Your task to perform on an android device: Open calendar and show me the third week of next month Image 0: 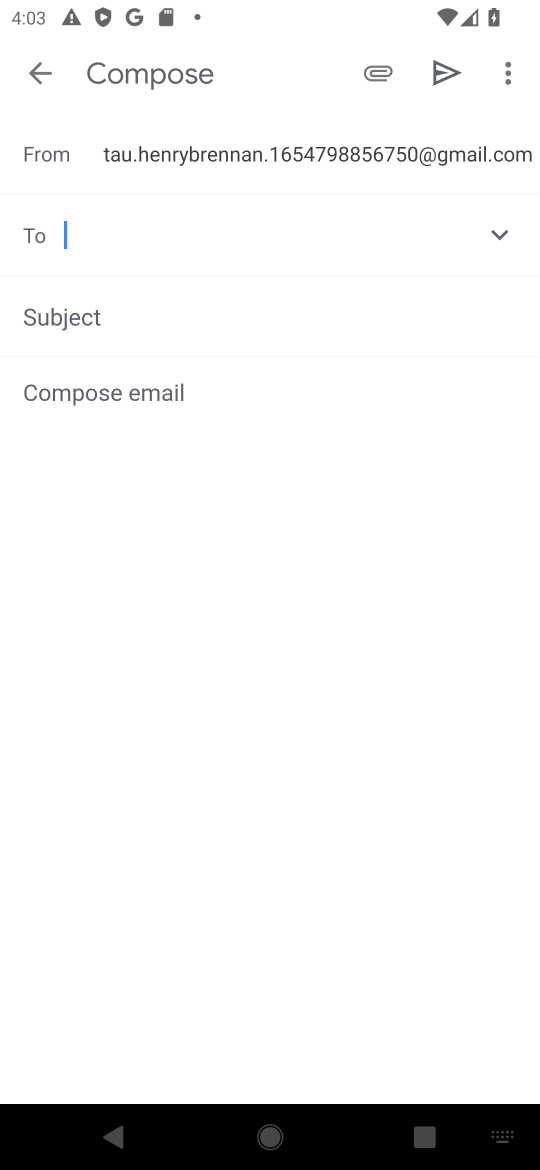
Step 0: press home button
Your task to perform on an android device: Open calendar and show me the third week of next month Image 1: 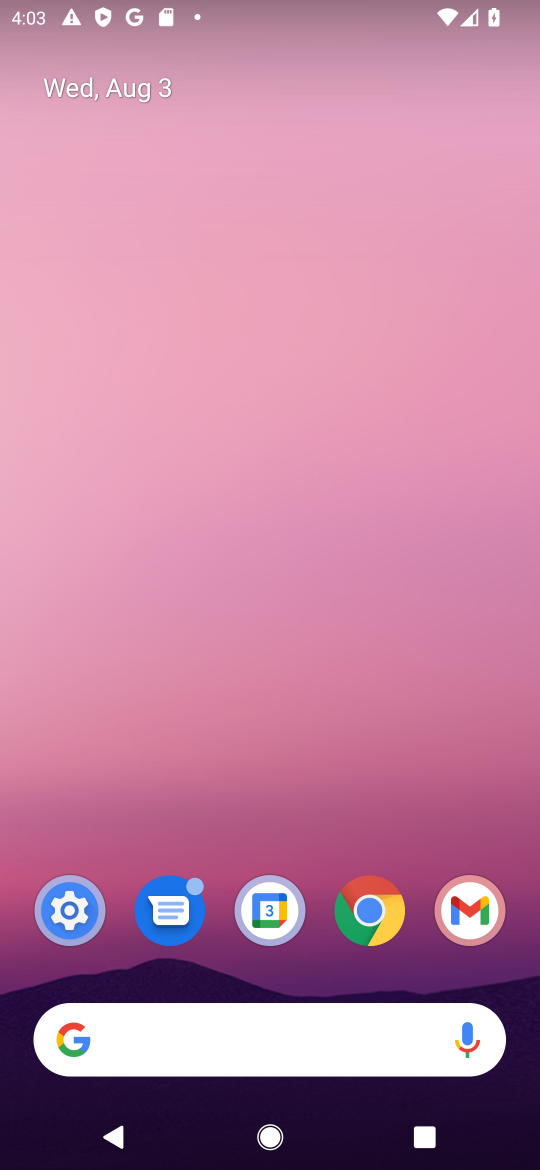
Step 1: drag from (68, 1097) to (295, 100)
Your task to perform on an android device: Open calendar and show me the third week of next month Image 2: 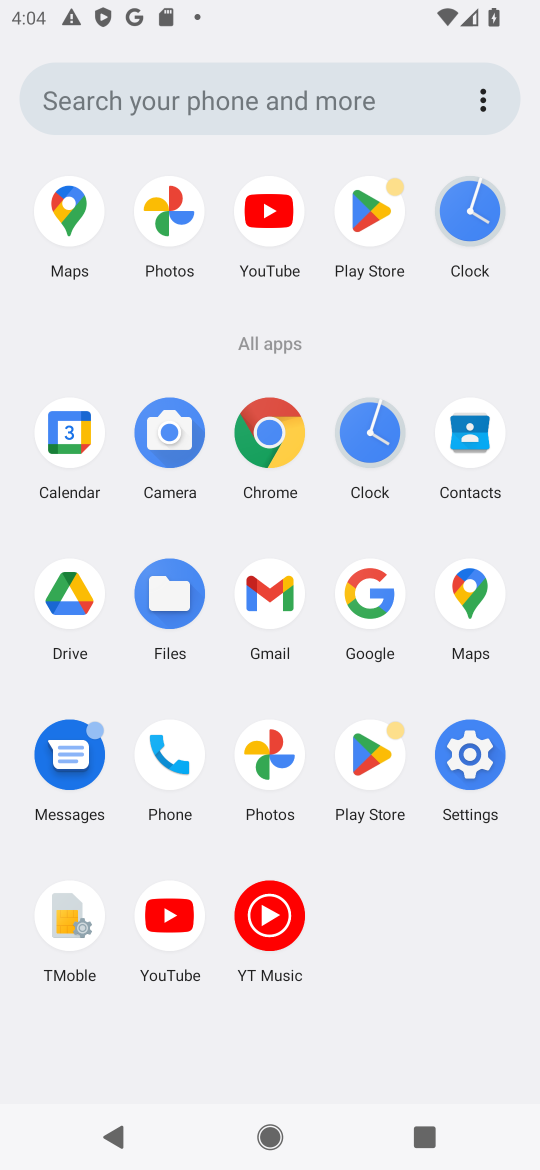
Step 2: click (90, 462)
Your task to perform on an android device: Open calendar and show me the third week of next month Image 3: 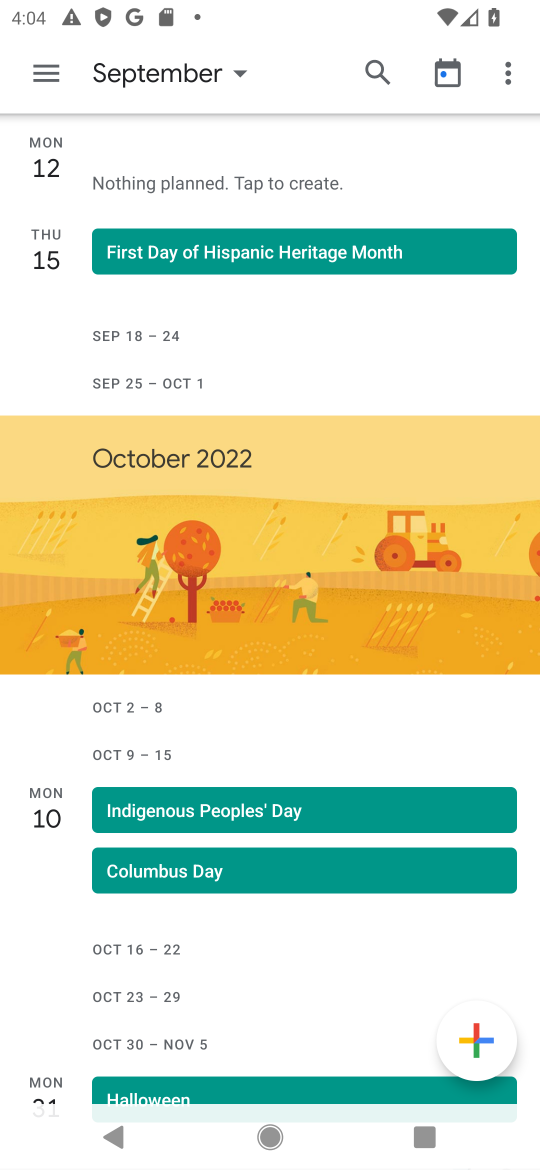
Step 3: click (233, 64)
Your task to perform on an android device: Open calendar and show me the third week of next month Image 4: 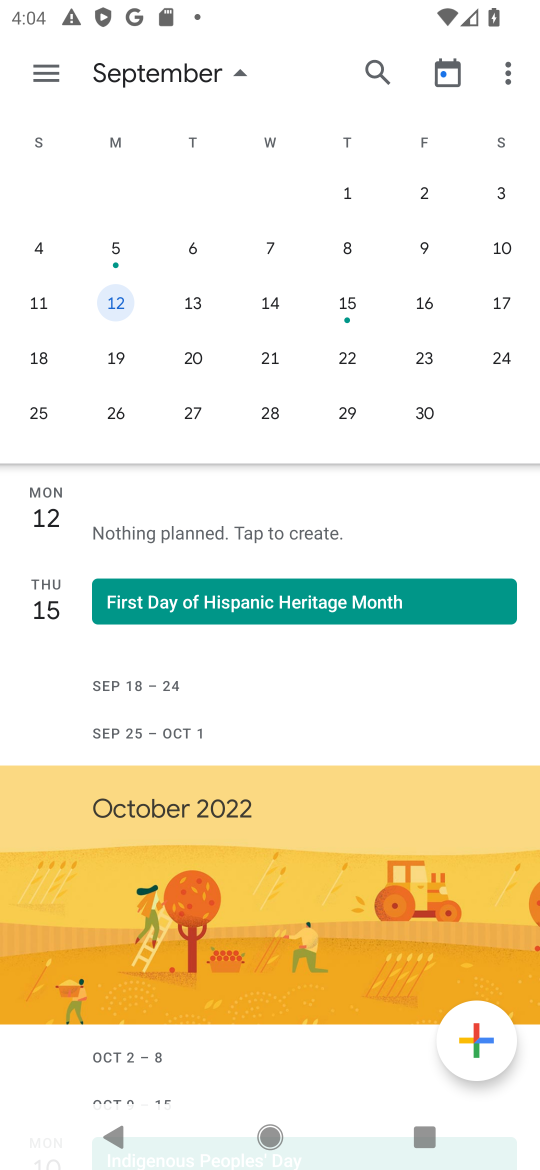
Step 4: drag from (38, 205) to (528, 507)
Your task to perform on an android device: Open calendar and show me the third week of next month Image 5: 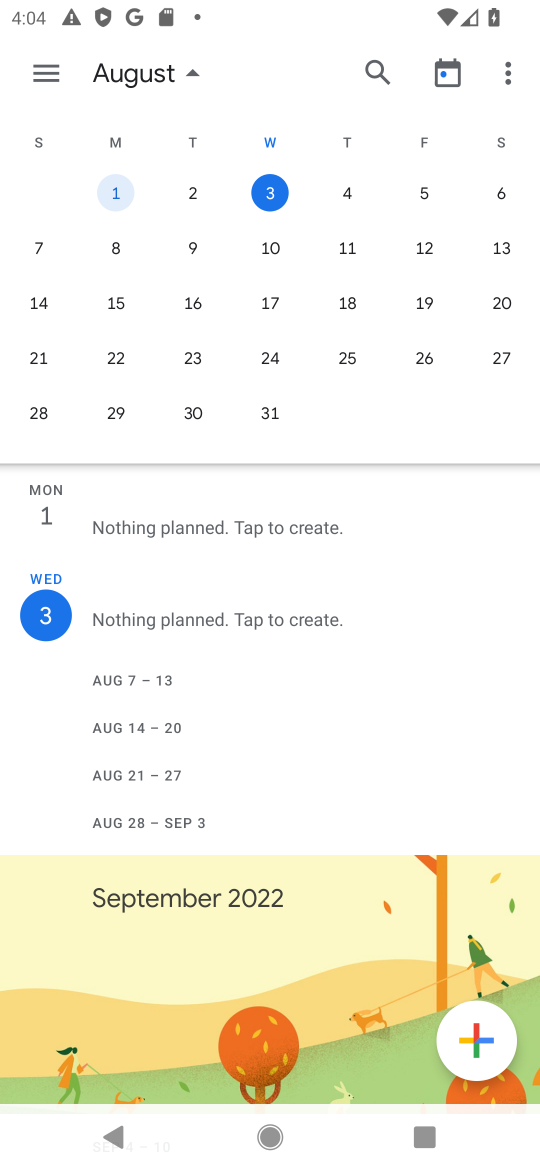
Step 5: click (117, 297)
Your task to perform on an android device: Open calendar and show me the third week of next month Image 6: 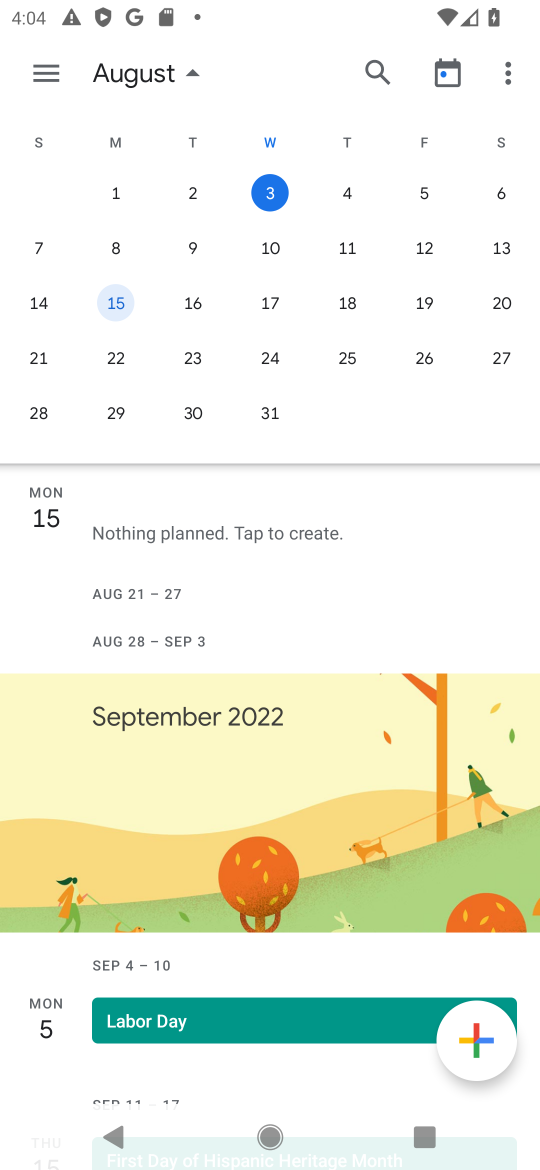
Step 6: drag from (507, 235) to (36, 176)
Your task to perform on an android device: Open calendar and show me the third week of next month Image 7: 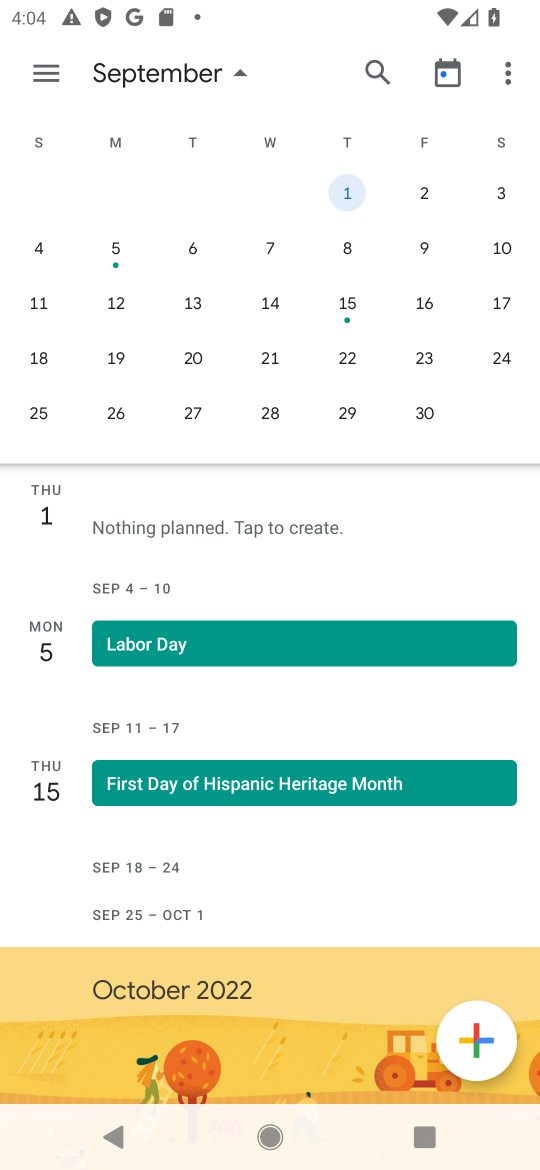
Step 7: click (118, 287)
Your task to perform on an android device: Open calendar and show me the third week of next month Image 8: 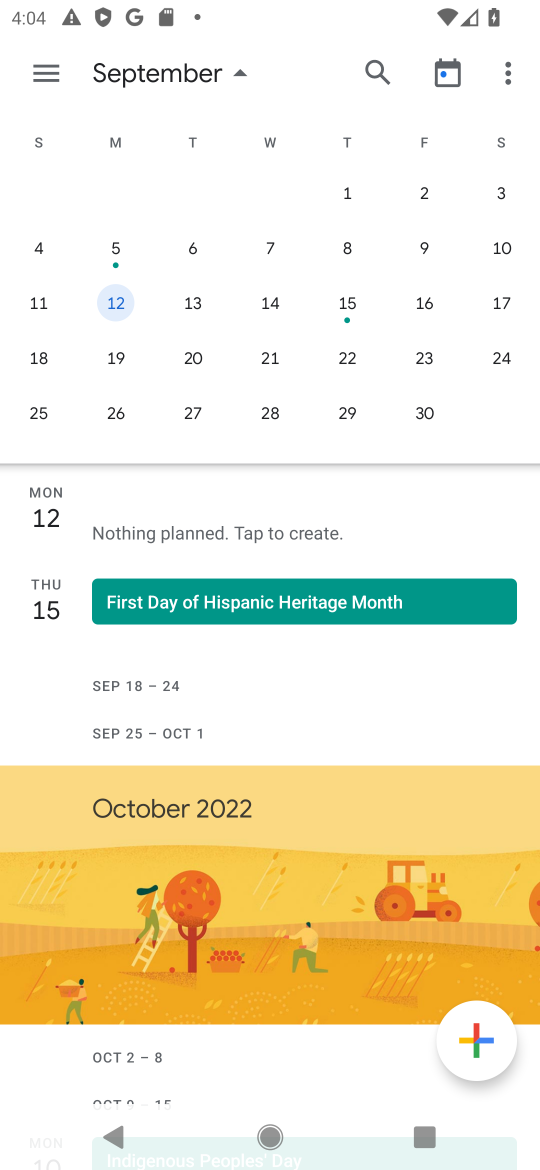
Step 8: task complete